Your task to perform on an android device: turn notification dots on Image 0: 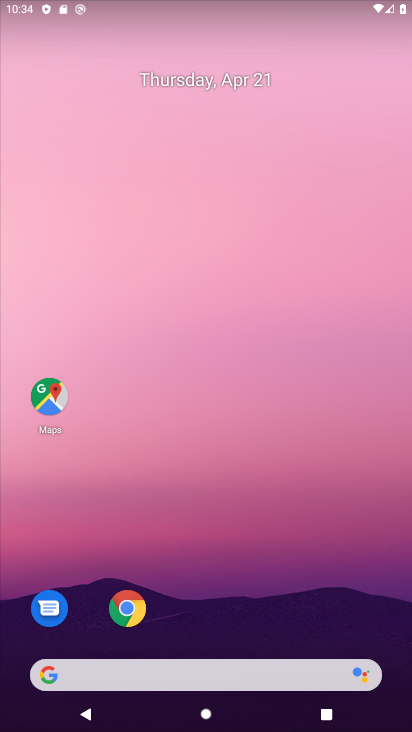
Step 0: drag from (219, 495) to (273, 25)
Your task to perform on an android device: turn notification dots on Image 1: 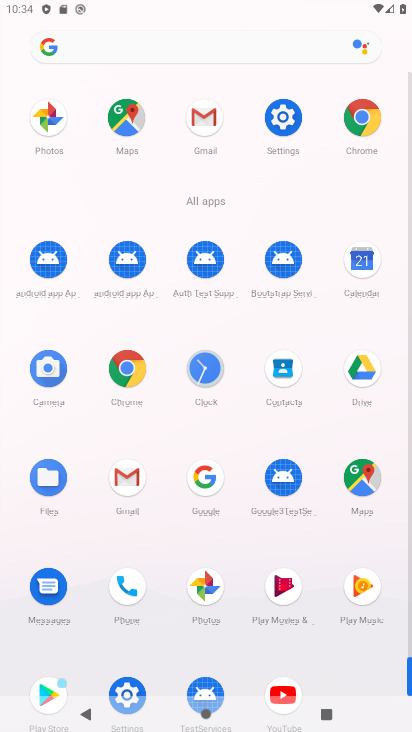
Step 1: click (284, 119)
Your task to perform on an android device: turn notification dots on Image 2: 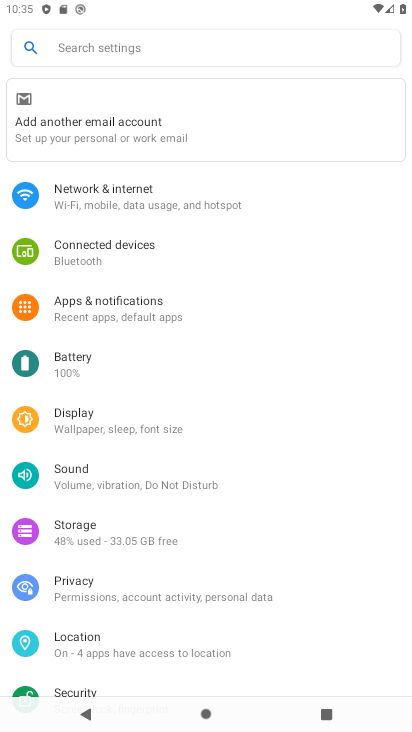
Step 2: click (140, 301)
Your task to perform on an android device: turn notification dots on Image 3: 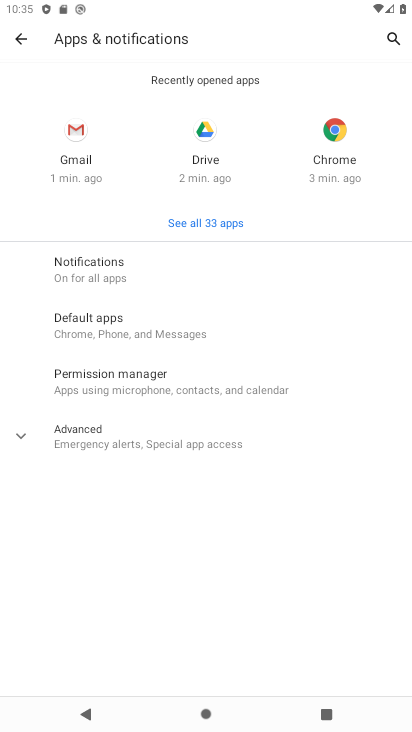
Step 3: click (111, 278)
Your task to perform on an android device: turn notification dots on Image 4: 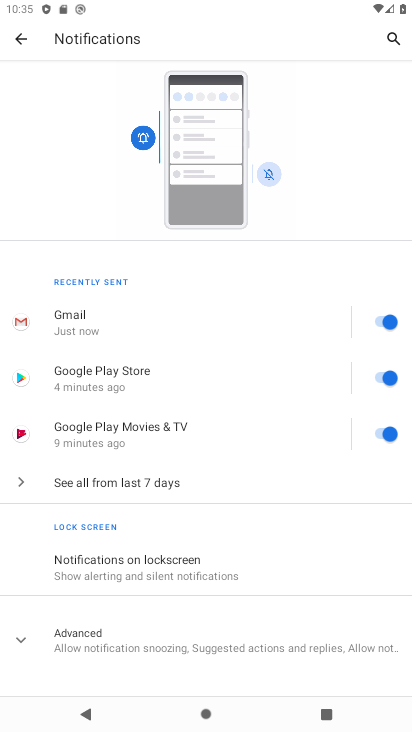
Step 4: click (139, 651)
Your task to perform on an android device: turn notification dots on Image 5: 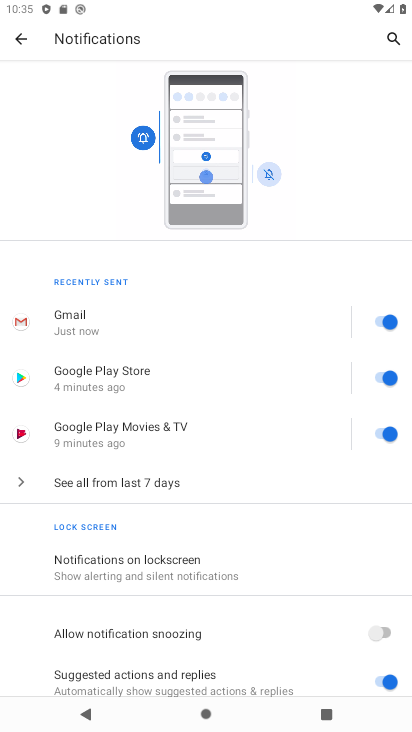
Step 5: task complete